Your task to perform on an android device: toggle airplane mode Image 0: 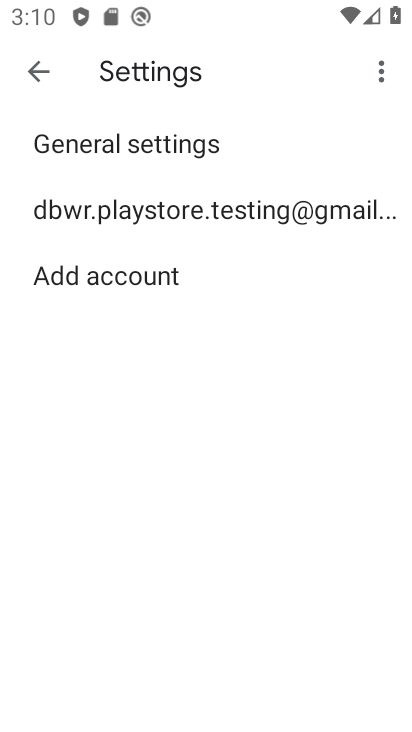
Step 0: press home button
Your task to perform on an android device: toggle airplane mode Image 1: 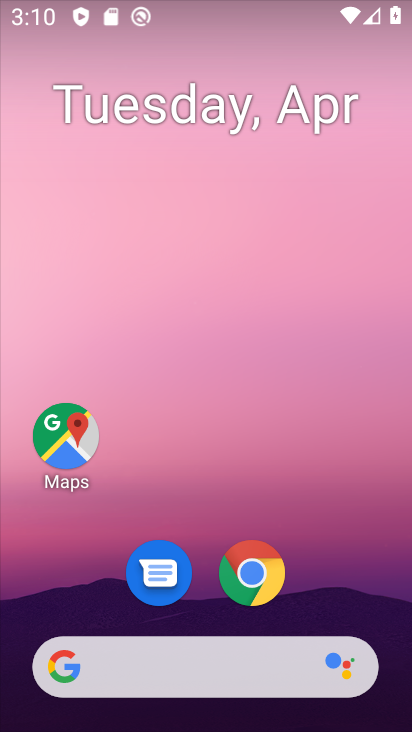
Step 1: drag from (211, 511) to (217, 145)
Your task to perform on an android device: toggle airplane mode Image 2: 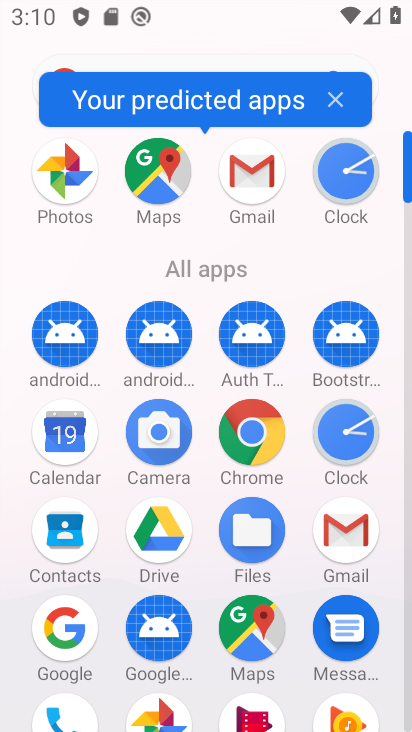
Step 2: drag from (202, 445) to (221, 186)
Your task to perform on an android device: toggle airplane mode Image 3: 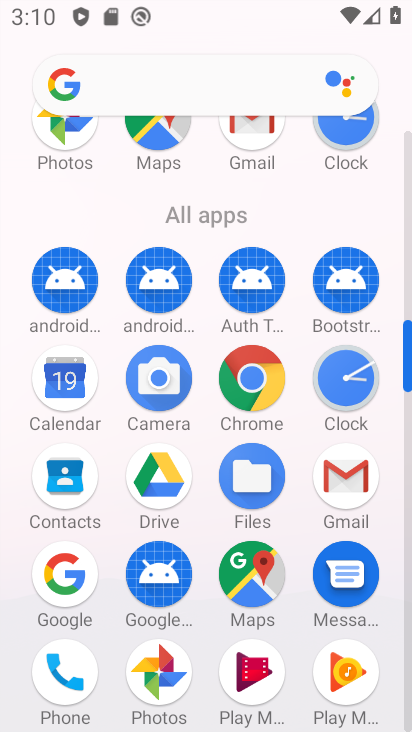
Step 3: drag from (201, 526) to (204, 200)
Your task to perform on an android device: toggle airplane mode Image 4: 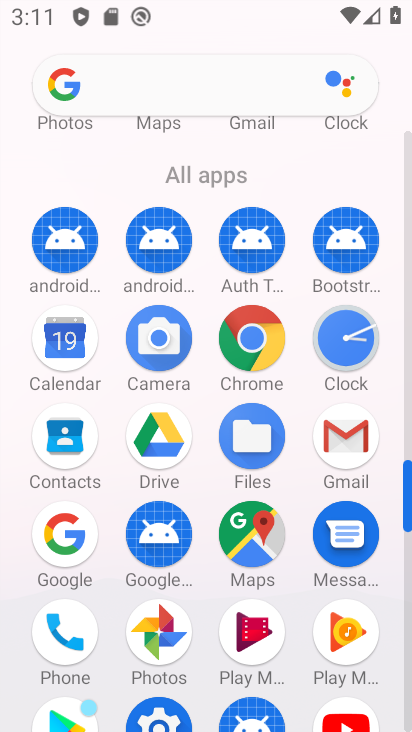
Step 4: drag from (197, 602) to (216, 281)
Your task to perform on an android device: toggle airplane mode Image 5: 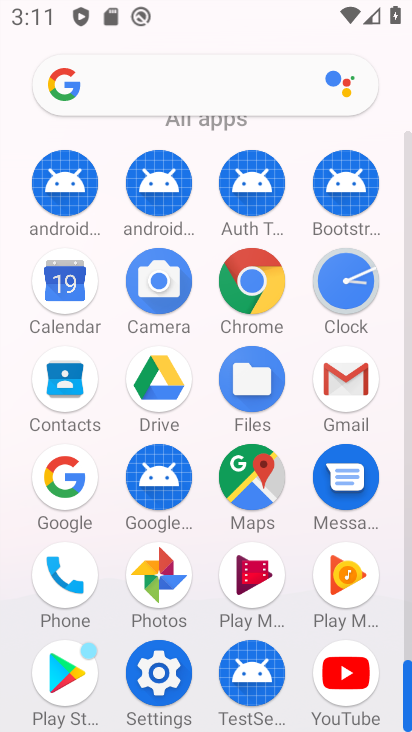
Step 5: click (157, 653)
Your task to perform on an android device: toggle airplane mode Image 6: 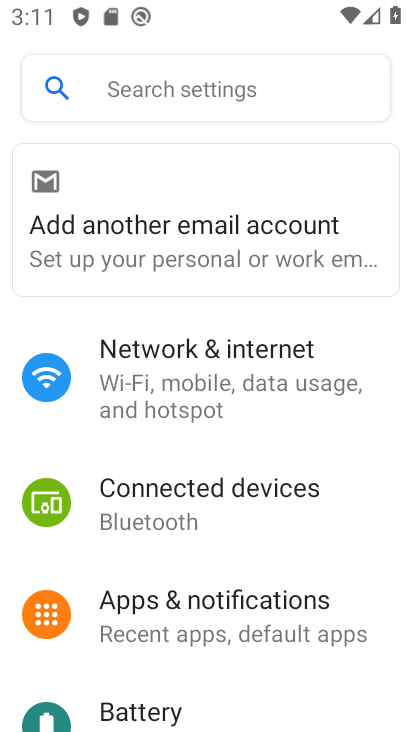
Step 6: click (204, 365)
Your task to perform on an android device: toggle airplane mode Image 7: 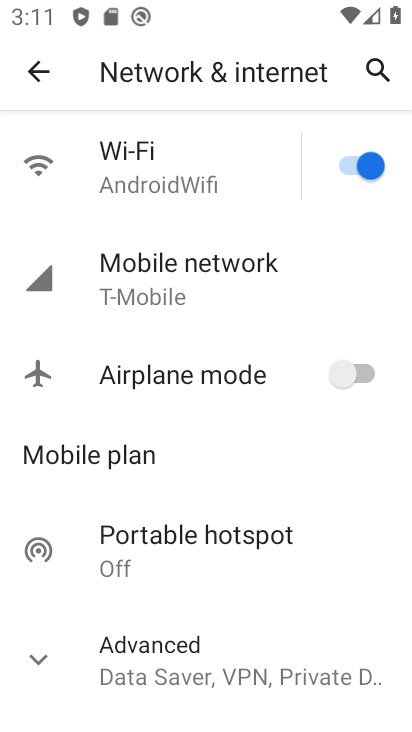
Step 7: click (370, 363)
Your task to perform on an android device: toggle airplane mode Image 8: 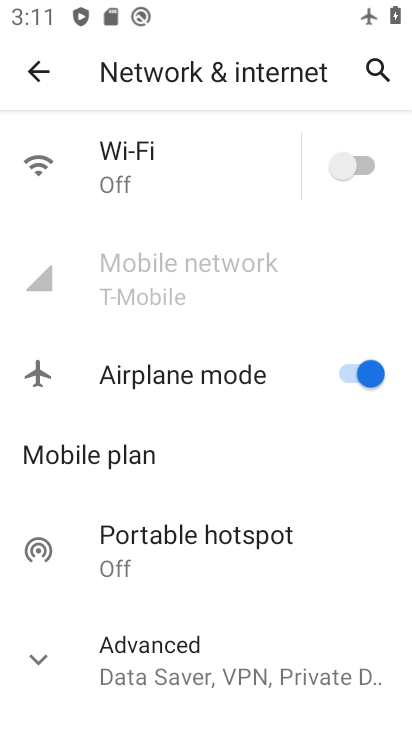
Step 8: task complete